Your task to perform on an android device: add a contact Image 0: 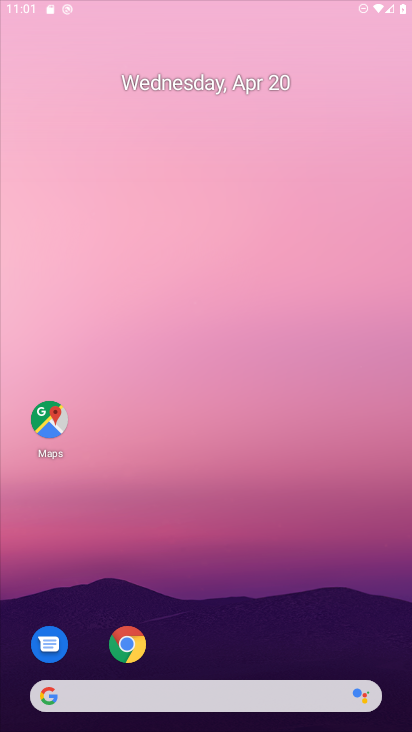
Step 0: drag from (297, 48) to (230, 86)
Your task to perform on an android device: add a contact Image 1: 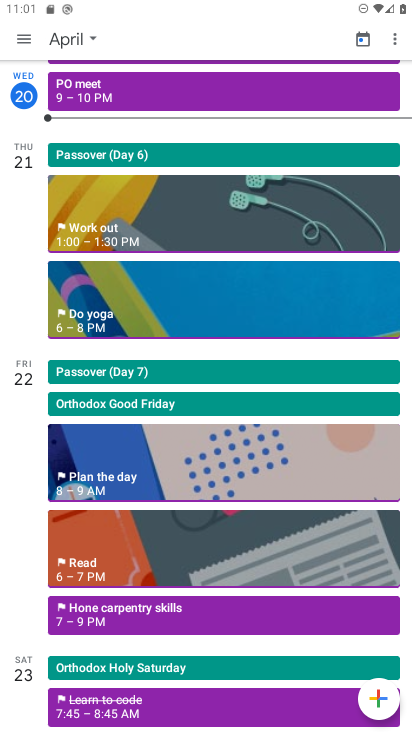
Step 1: press back button
Your task to perform on an android device: add a contact Image 2: 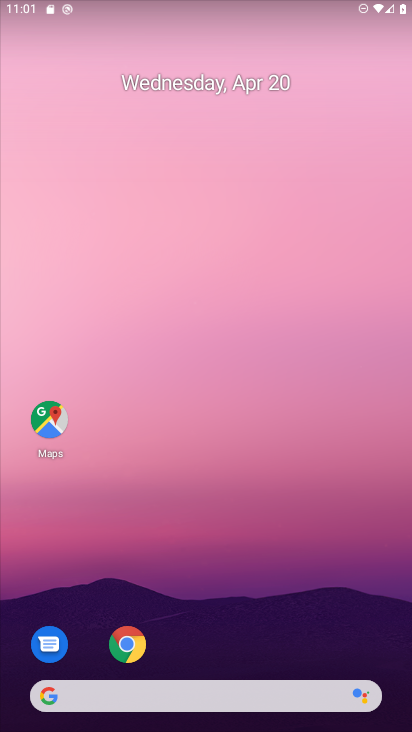
Step 2: drag from (310, 642) to (229, 100)
Your task to perform on an android device: add a contact Image 3: 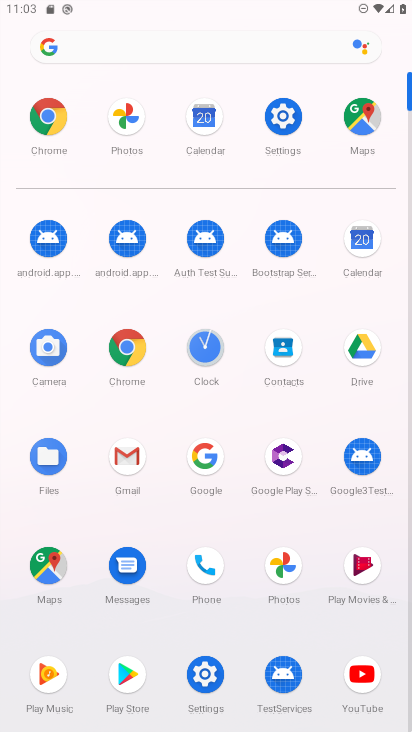
Step 3: click (269, 370)
Your task to perform on an android device: add a contact Image 4: 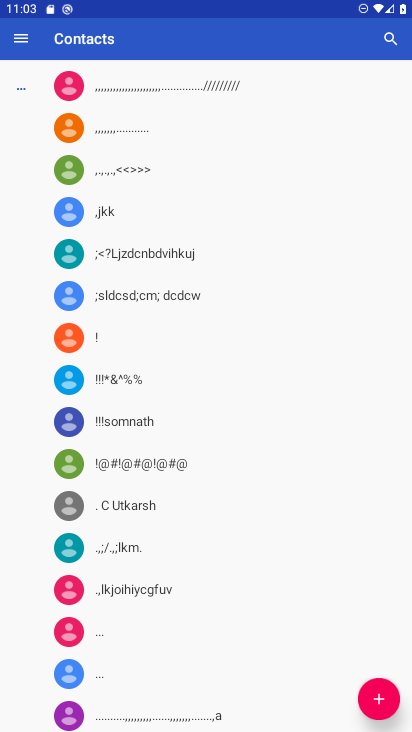
Step 4: click (388, 700)
Your task to perform on an android device: add a contact Image 5: 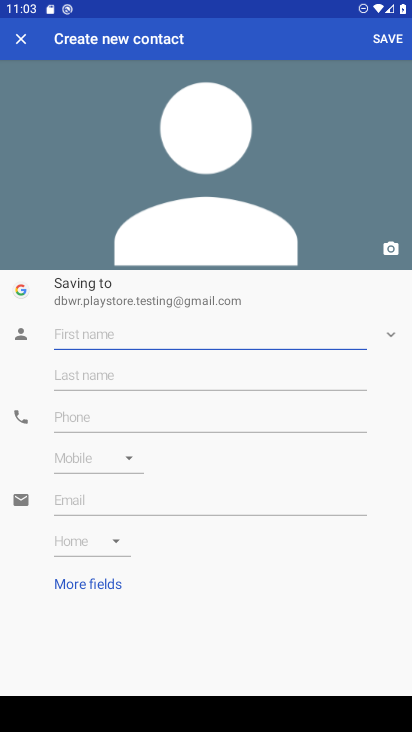
Step 5: type "anil"
Your task to perform on an android device: add a contact Image 6: 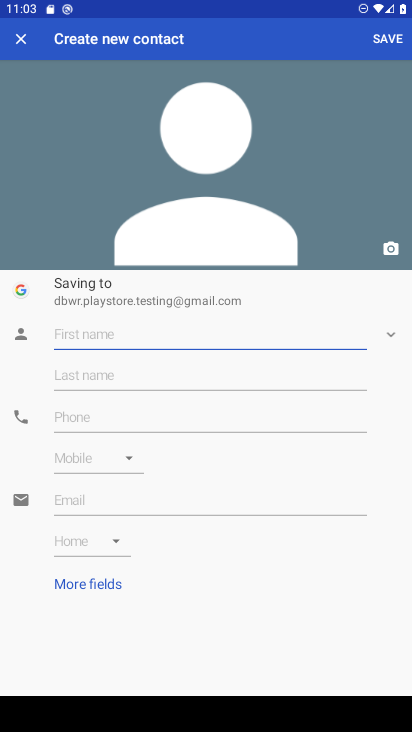
Step 6: click (381, 37)
Your task to perform on an android device: add a contact Image 7: 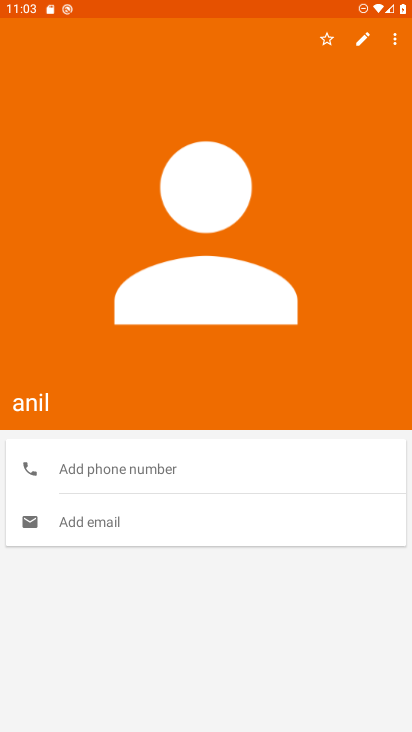
Step 7: task complete